Your task to perform on an android device: Open Android settings Image 0: 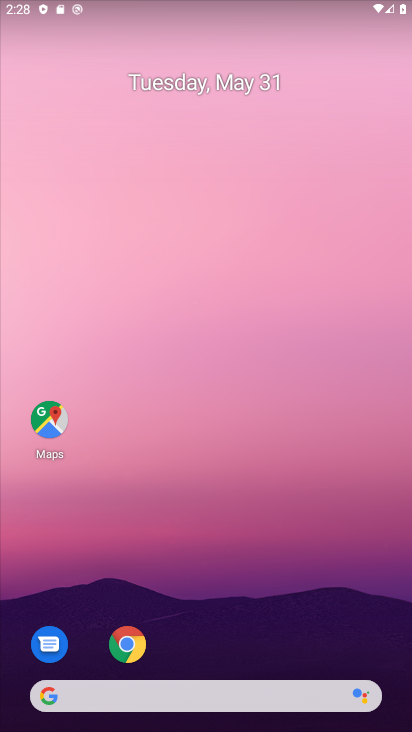
Step 0: drag from (201, 652) to (235, 53)
Your task to perform on an android device: Open Android settings Image 1: 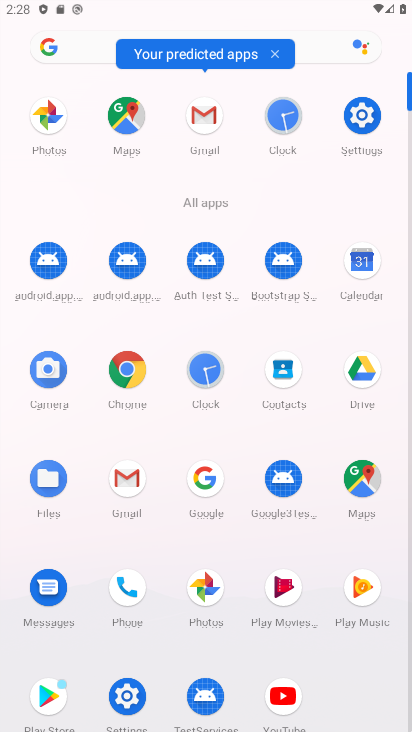
Step 1: click (361, 111)
Your task to perform on an android device: Open Android settings Image 2: 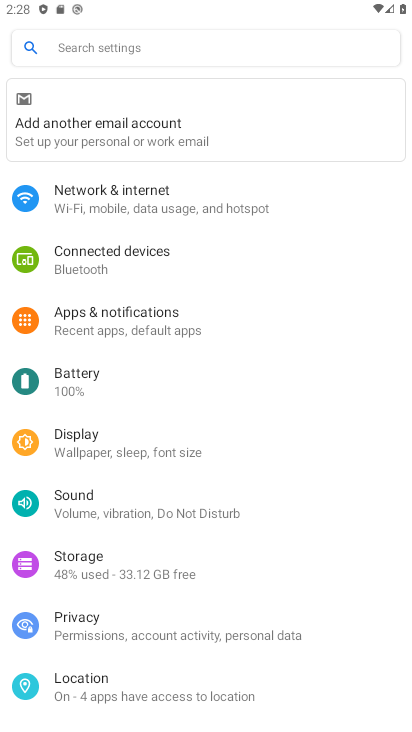
Step 2: drag from (275, 620) to (285, 161)
Your task to perform on an android device: Open Android settings Image 3: 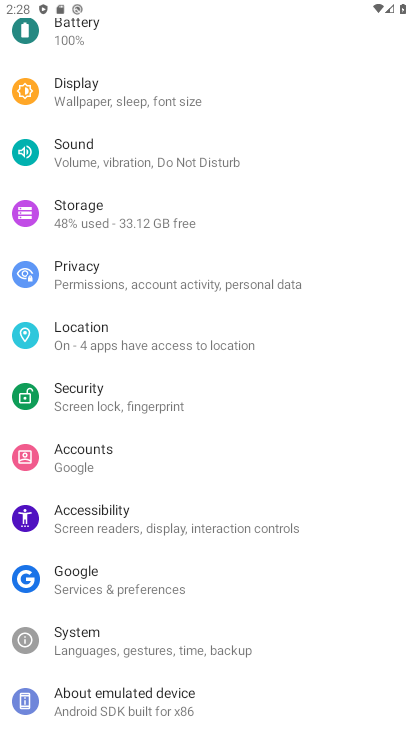
Step 3: drag from (287, 643) to (320, 195)
Your task to perform on an android device: Open Android settings Image 4: 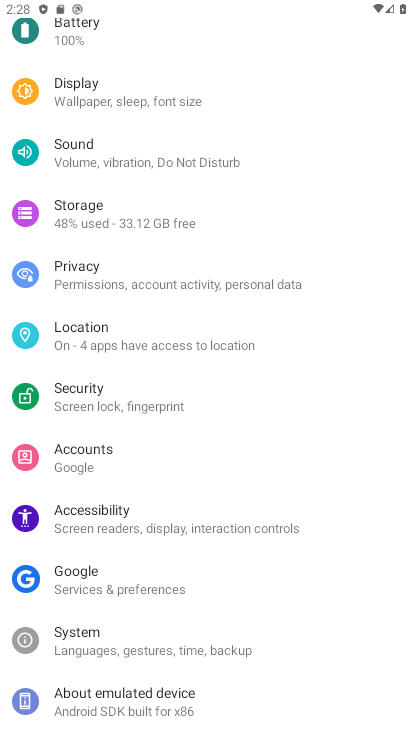
Step 4: click (174, 693)
Your task to perform on an android device: Open Android settings Image 5: 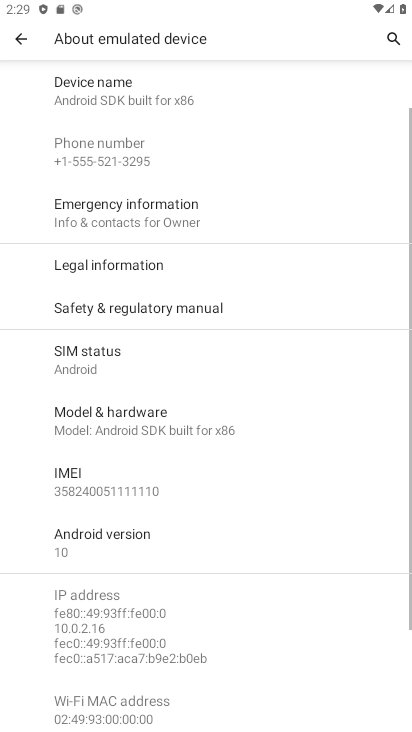
Step 5: click (155, 538)
Your task to perform on an android device: Open Android settings Image 6: 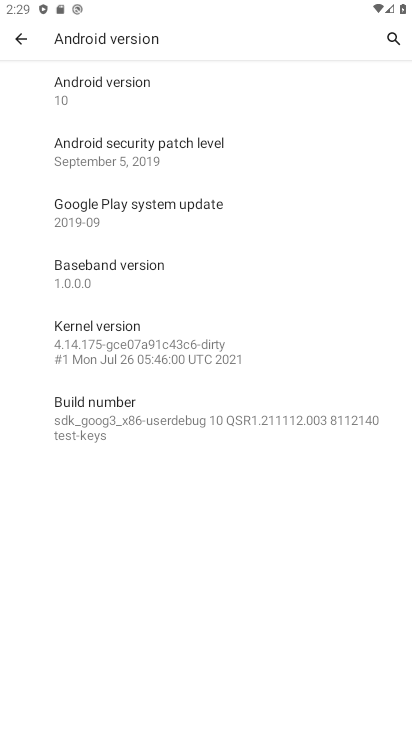
Step 6: task complete